Your task to perform on an android device: turn off translation in the chrome app Image 0: 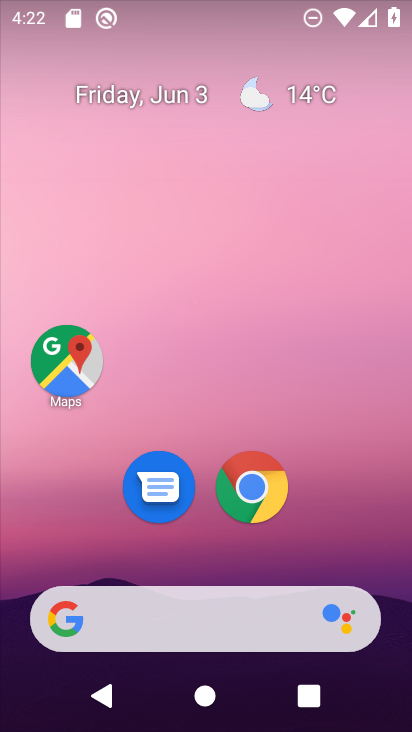
Step 0: click (241, 487)
Your task to perform on an android device: turn off translation in the chrome app Image 1: 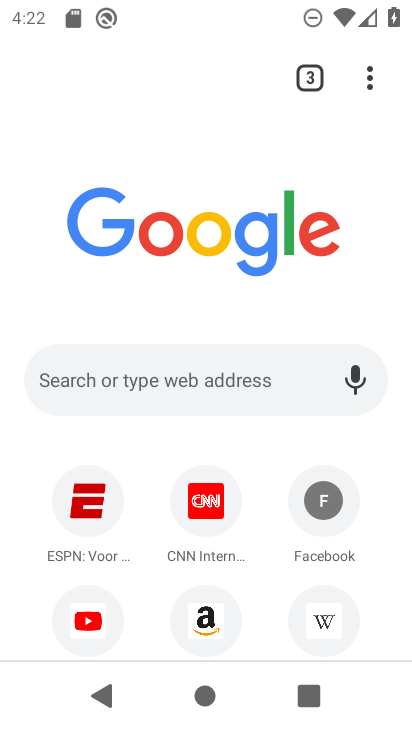
Step 1: drag from (375, 66) to (94, 533)
Your task to perform on an android device: turn off translation in the chrome app Image 2: 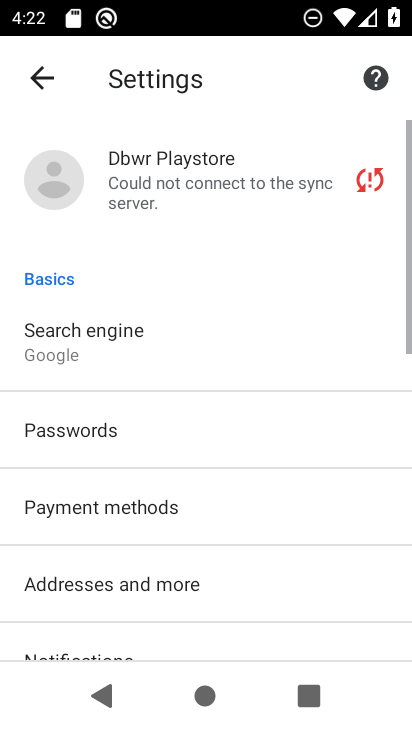
Step 2: drag from (129, 586) to (289, 29)
Your task to perform on an android device: turn off translation in the chrome app Image 3: 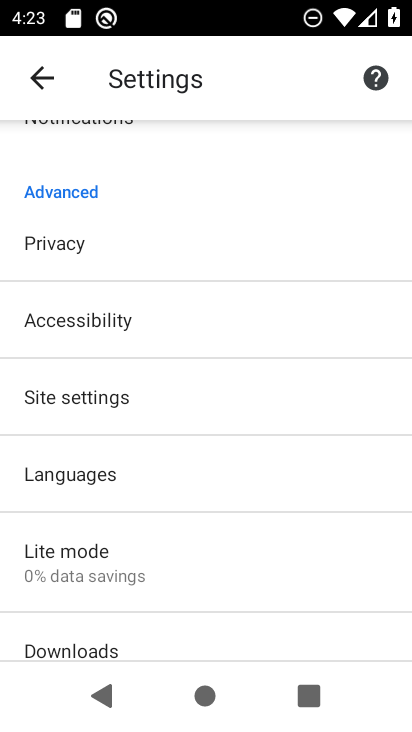
Step 3: click (67, 468)
Your task to perform on an android device: turn off translation in the chrome app Image 4: 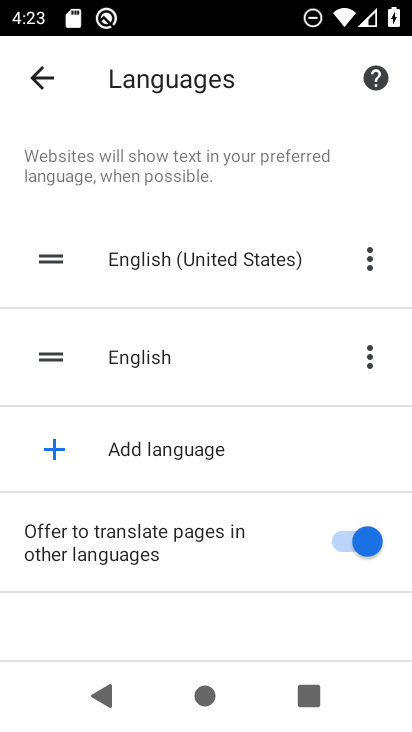
Step 4: click (359, 537)
Your task to perform on an android device: turn off translation in the chrome app Image 5: 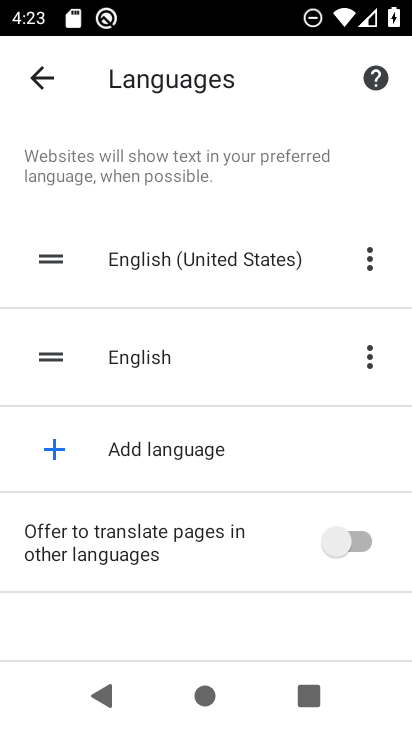
Step 5: task complete